Your task to perform on an android device: change keyboard looks Image 0: 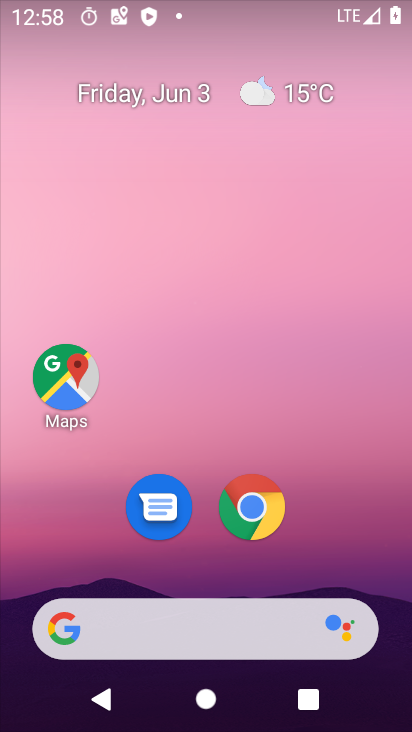
Step 0: drag from (388, 620) to (297, 26)
Your task to perform on an android device: change keyboard looks Image 1: 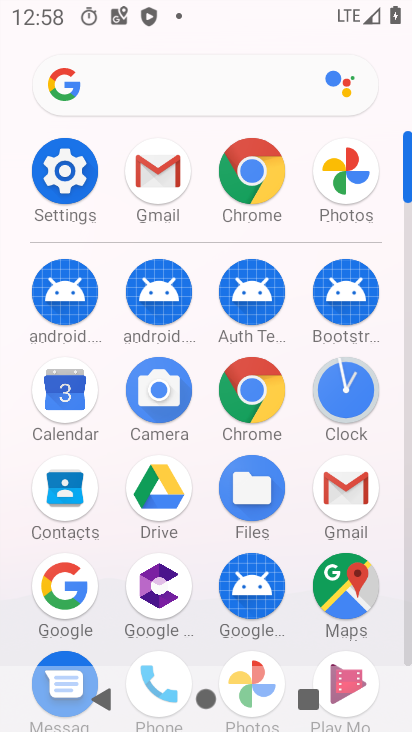
Step 1: click (67, 172)
Your task to perform on an android device: change keyboard looks Image 2: 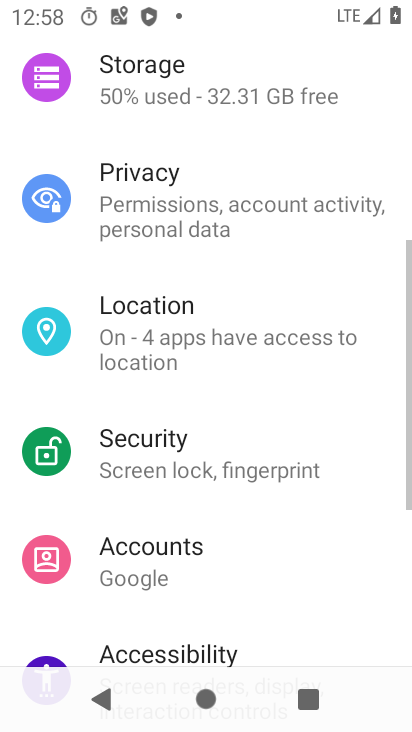
Step 2: drag from (218, 641) to (261, 51)
Your task to perform on an android device: change keyboard looks Image 3: 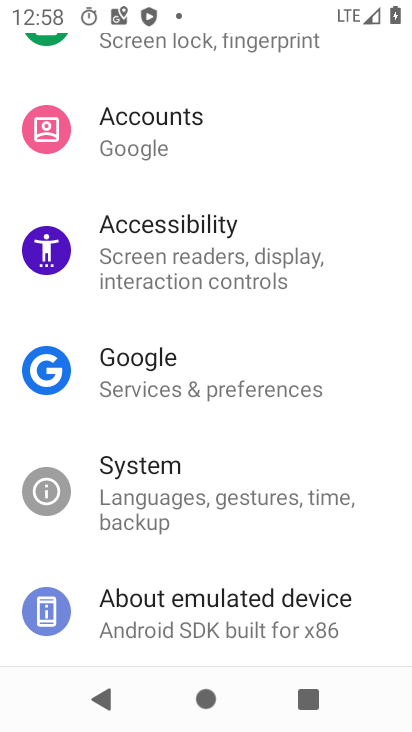
Step 3: click (219, 503)
Your task to perform on an android device: change keyboard looks Image 4: 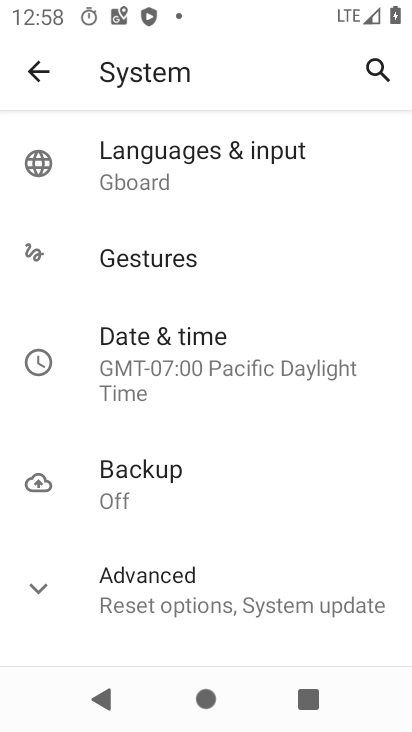
Step 4: click (166, 172)
Your task to perform on an android device: change keyboard looks Image 5: 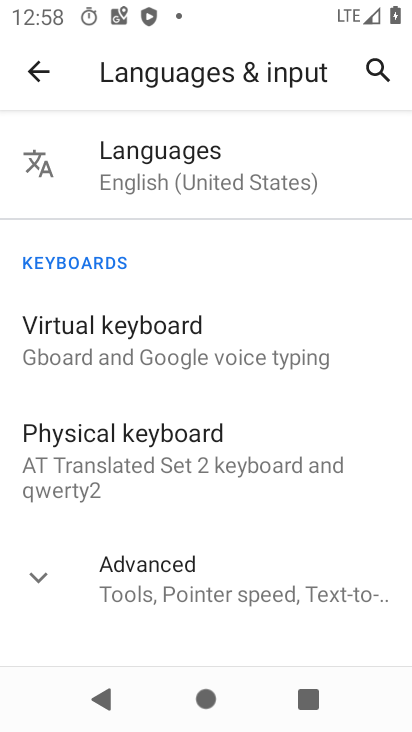
Step 5: click (133, 332)
Your task to perform on an android device: change keyboard looks Image 6: 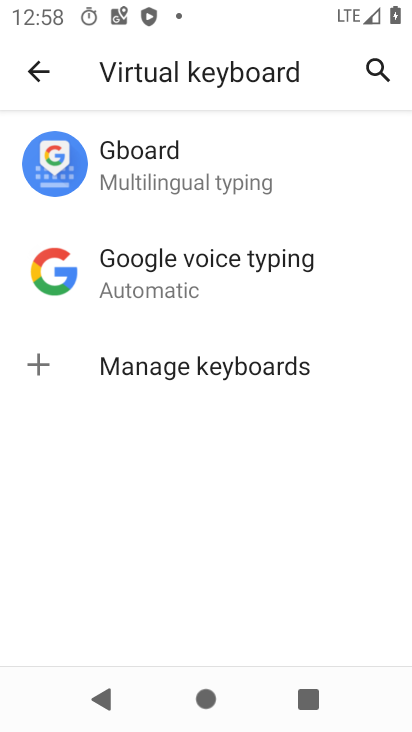
Step 6: click (130, 175)
Your task to perform on an android device: change keyboard looks Image 7: 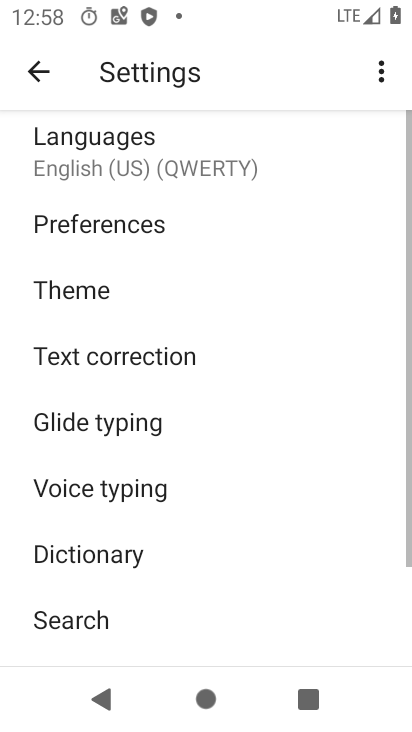
Step 7: click (112, 264)
Your task to perform on an android device: change keyboard looks Image 8: 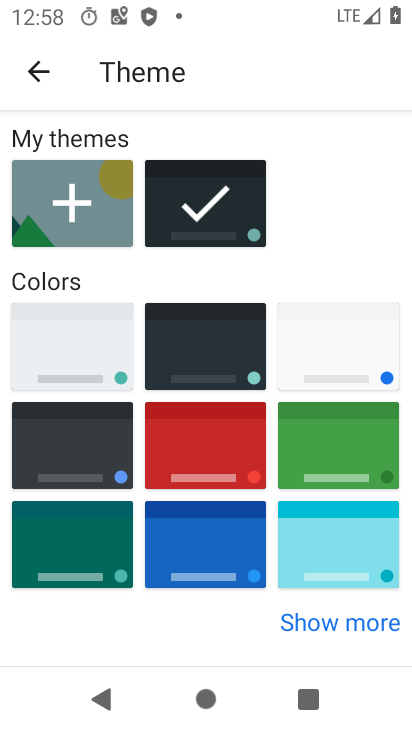
Step 8: click (315, 363)
Your task to perform on an android device: change keyboard looks Image 9: 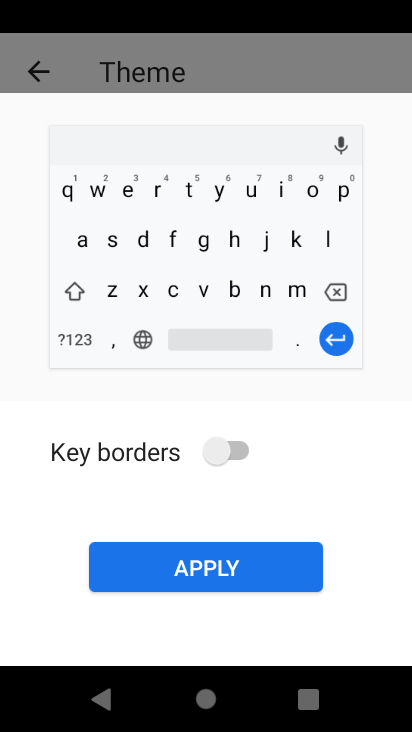
Step 9: click (186, 568)
Your task to perform on an android device: change keyboard looks Image 10: 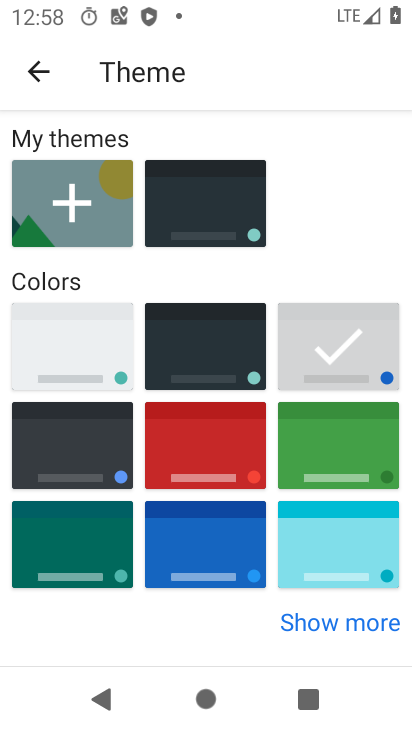
Step 10: task complete